Your task to perform on an android device: toggle sleep mode Image 0: 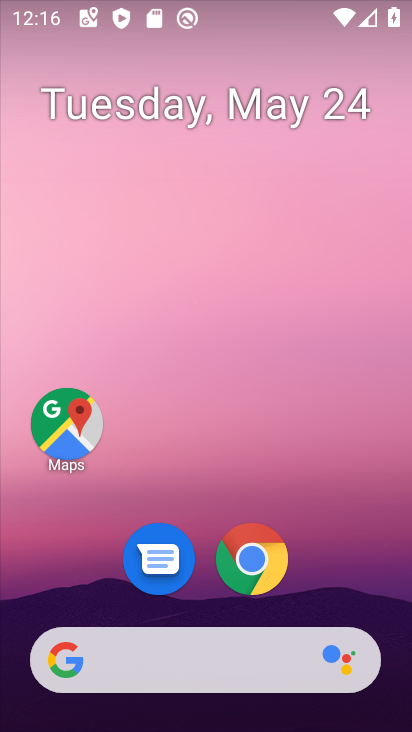
Step 0: drag from (322, 657) to (173, 78)
Your task to perform on an android device: toggle sleep mode Image 1: 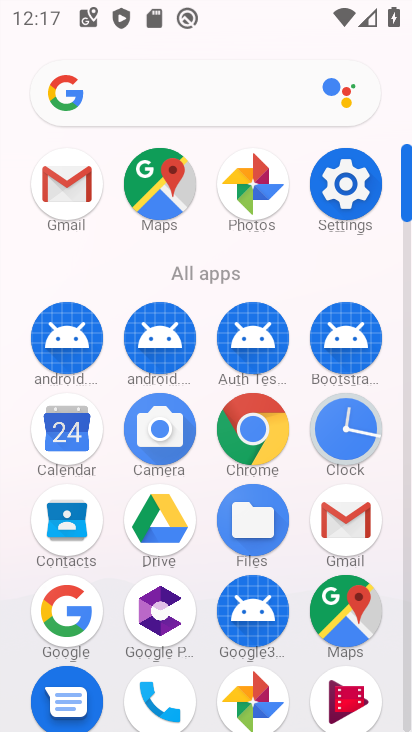
Step 1: click (347, 176)
Your task to perform on an android device: toggle sleep mode Image 2: 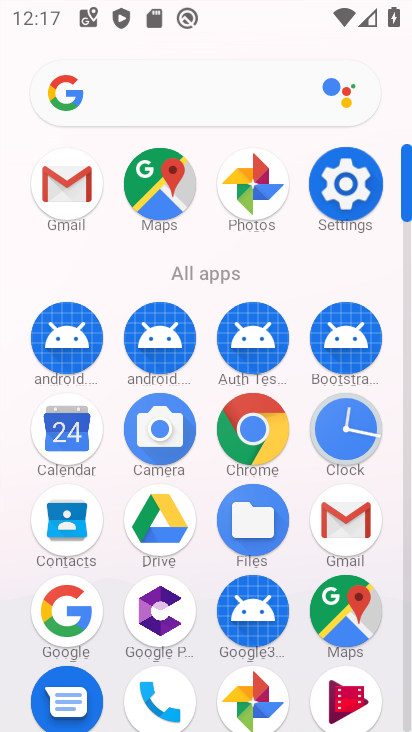
Step 2: click (347, 176)
Your task to perform on an android device: toggle sleep mode Image 3: 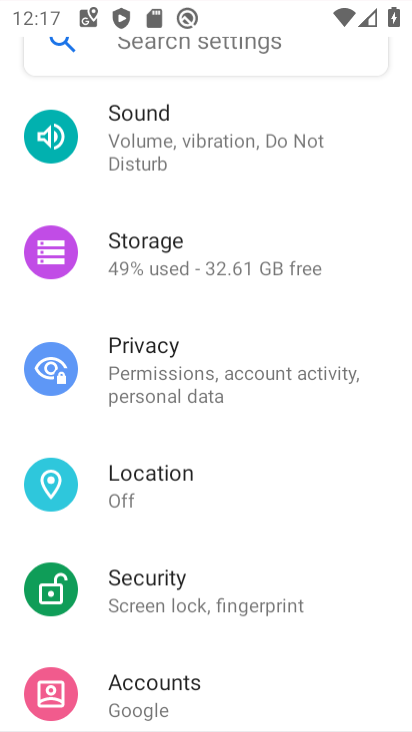
Step 3: click (347, 193)
Your task to perform on an android device: toggle sleep mode Image 4: 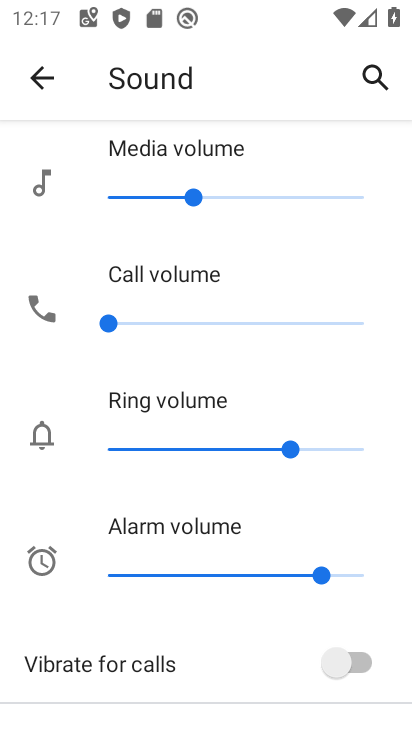
Step 4: click (30, 87)
Your task to perform on an android device: toggle sleep mode Image 5: 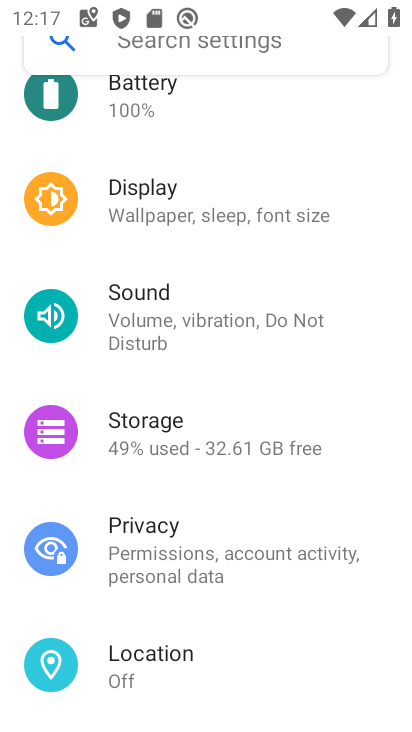
Step 5: click (169, 208)
Your task to perform on an android device: toggle sleep mode Image 6: 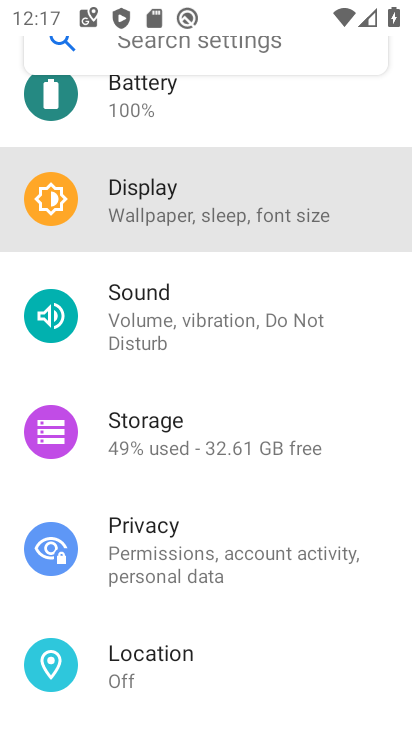
Step 6: click (168, 209)
Your task to perform on an android device: toggle sleep mode Image 7: 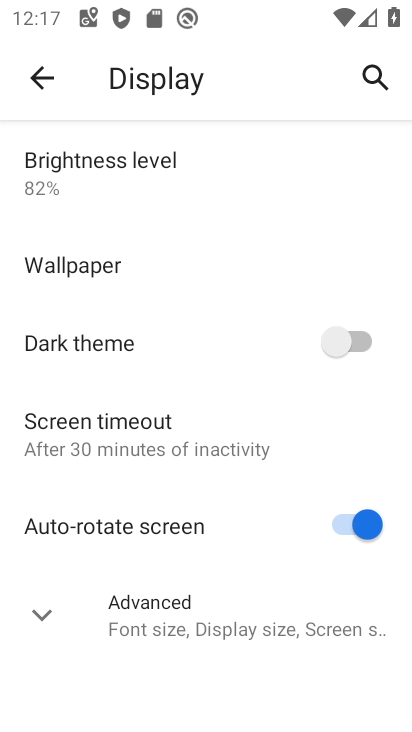
Step 7: click (172, 628)
Your task to perform on an android device: toggle sleep mode Image 8: 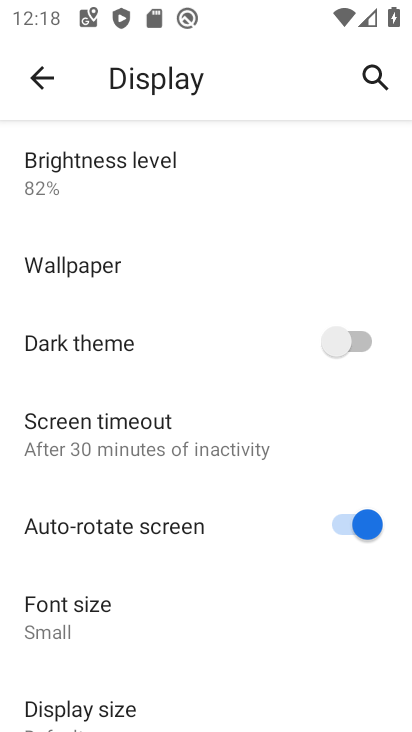
Step 8: click (112, 426)
Your task to perform on an android device: toggle sleep mode Image 9: 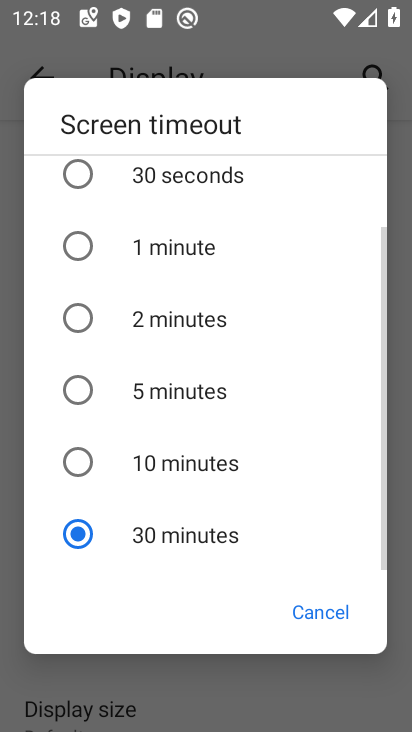
Step 9: click (80, 459)
Your task to perform on an android device: toggle sleep mode Image 10: 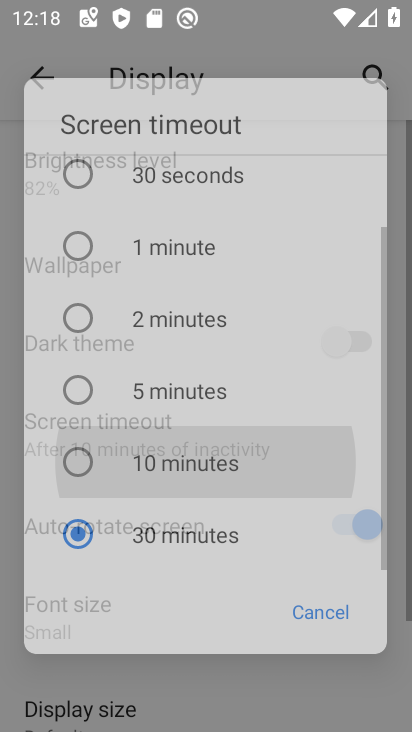
Step 10: click (80, 459)
Your task to perform on an android device: toggle sleep mode Image 11: 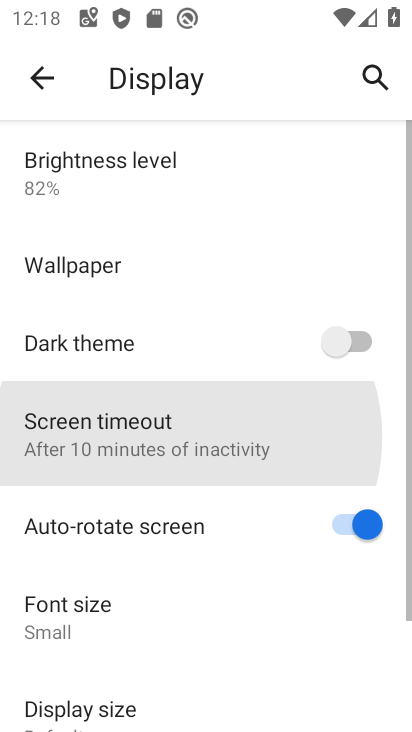
Step 11: click (80, 459)
Your task to perform on an android device: toggle sleep mode Image 12: 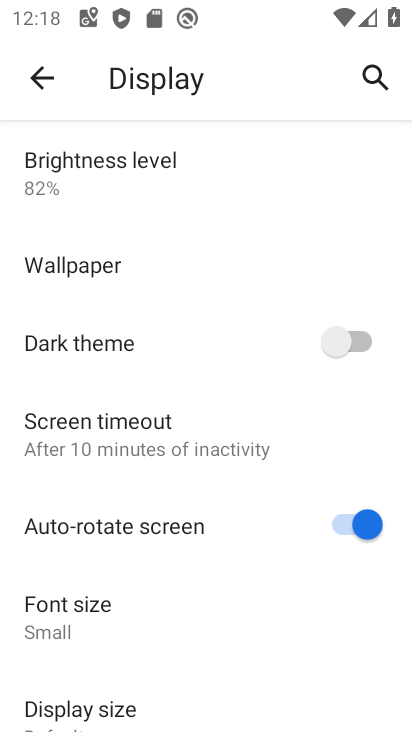
Step 12: task complete